Your task to perform on an android device: open a bookmark in the chrome app Image 0: 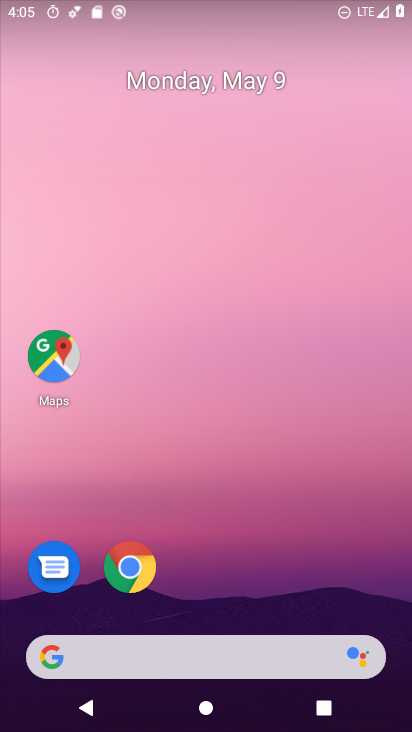
Step 0: click (117, 567)
Your task to perform on an android device: open a bookmark in the chrome app Image 1: 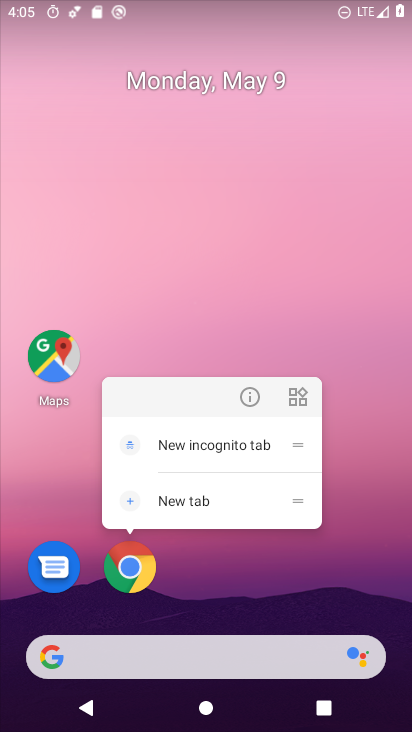
Step 1: click (117, 565)
Your task to perform on an android device: open a bookmark in the chrome app Image 2: 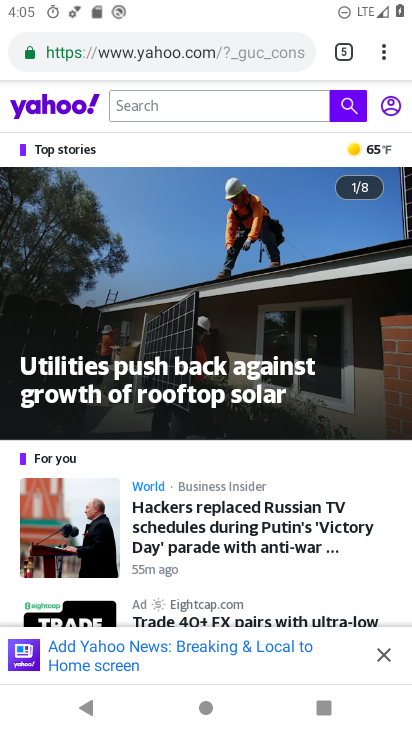
Step 2: click (390, 45)
Your task to perform on an android device: open a bookmark in the chrome app Image 3: 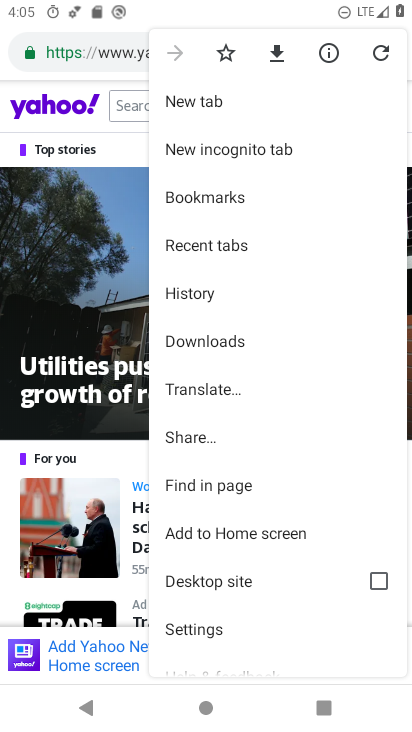
Step 3: click (243, 193)
Your task to perform on an android device: open a bookmark in the chrome app Image 4: 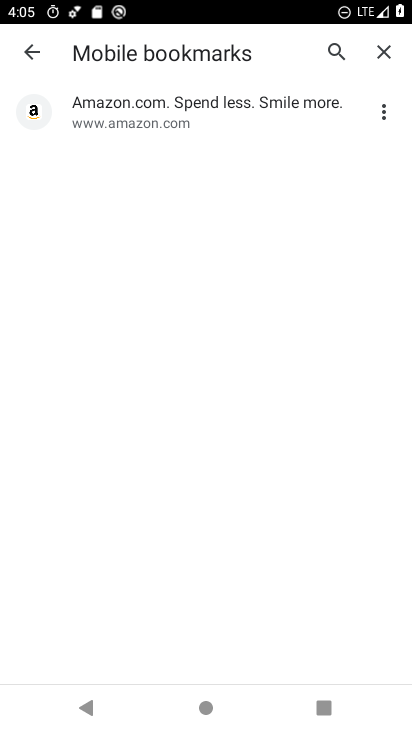
Step 4: click (190, 124)
Your task to perform on an android device: open a bookmark in the chrome app Image 5: 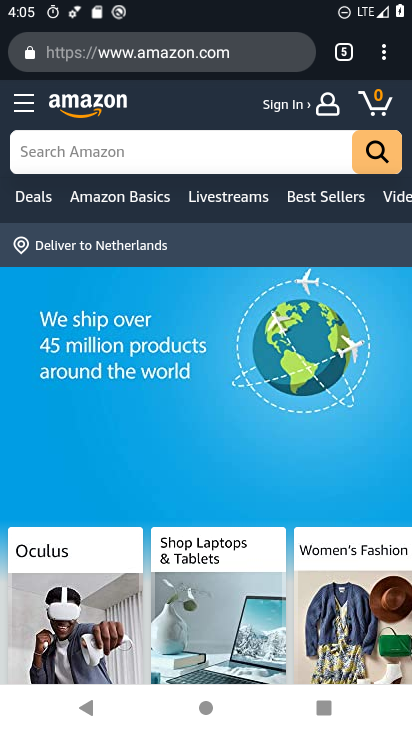
Step 5: task complete